Your task to perform on an android device: toggle wifi Image 0: 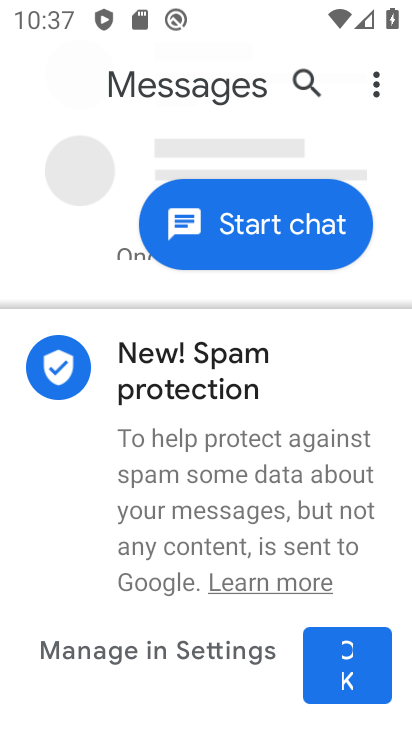
Step 0: press home button
Your task to perform on an android device: toggle wifi Image 1: 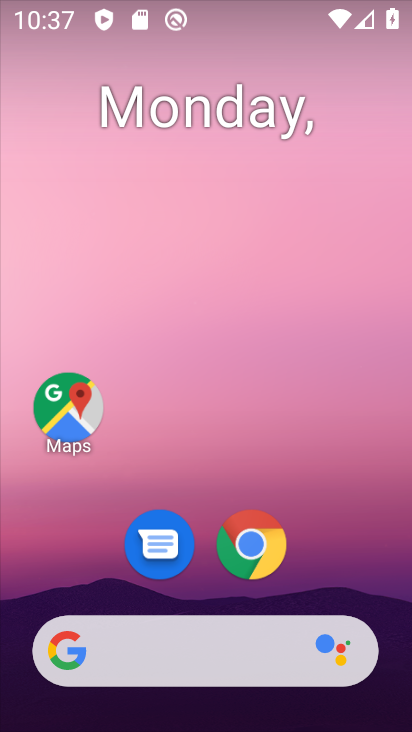
Step 1: drag from (409, 321) to (386, 62)
Your task to perform on an android device: toggle wifi Image 2: 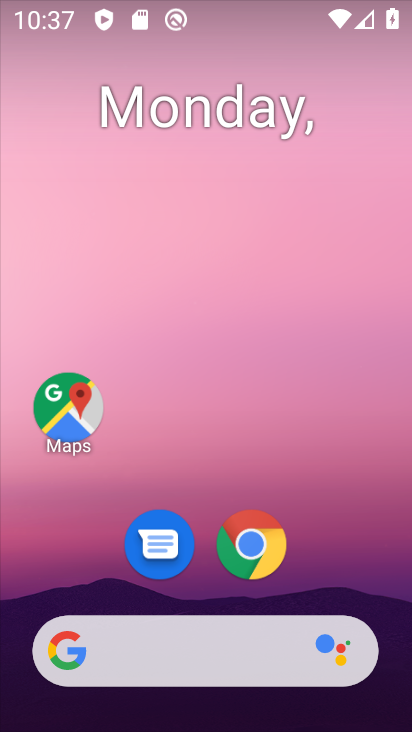
Step 2: drag from (411, 445) to (391, 157)
Your task to perform on an android device: toggle wifi Image 3: 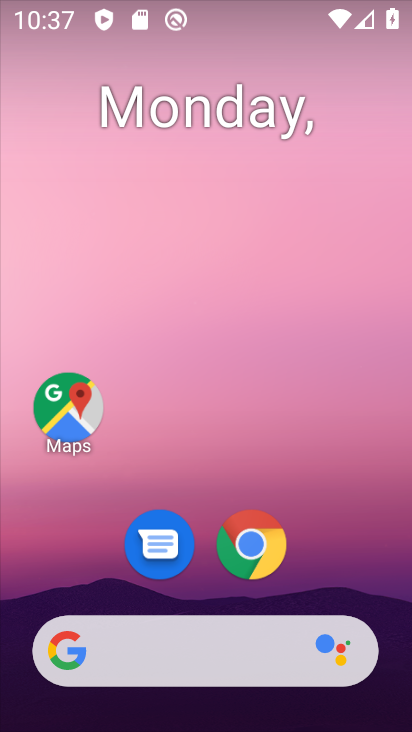
Step 3: drag from (400, 643) to (411, 319)
Your task to perform on an android device: toggle wifi Image 4: 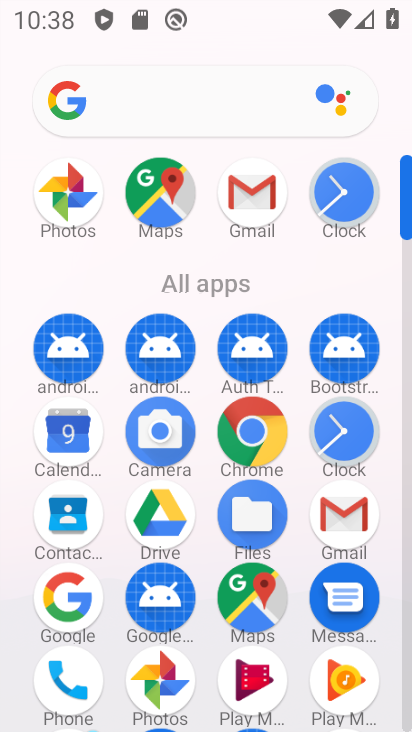
Step 4: drag from (403, 93) to (408, 40)
Your task to perform on an android device: toggle wifi Image 5: 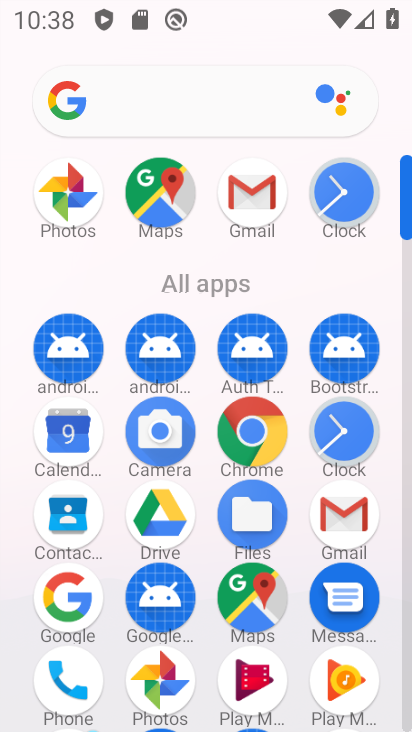
Step 5: drag from (405, 169) to (401, 41)
Your task to perform on an android device: toggle wifi Image 6: 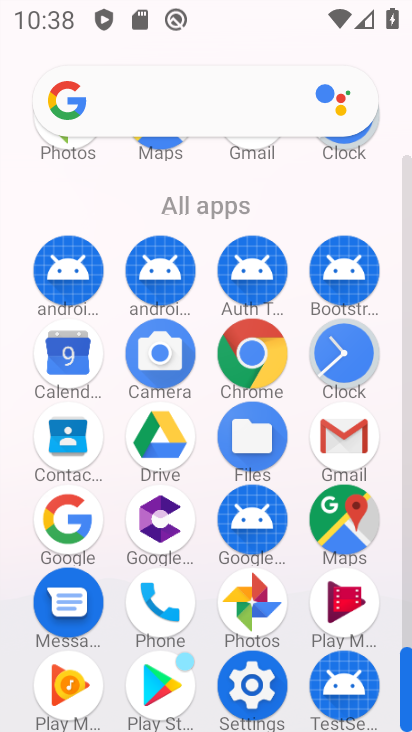
Step 6: click (257, 682)
Your task to perform on an android device: toggle wifi Image 7: 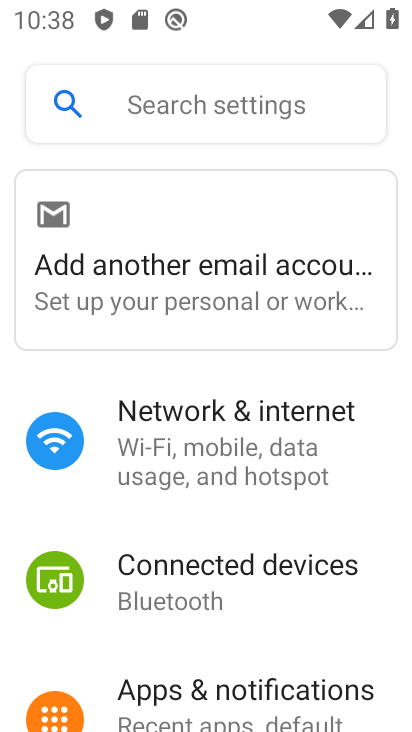
Step 7: click (182, 439)
Your task to perform on an android device: toggle wifi Image 8: 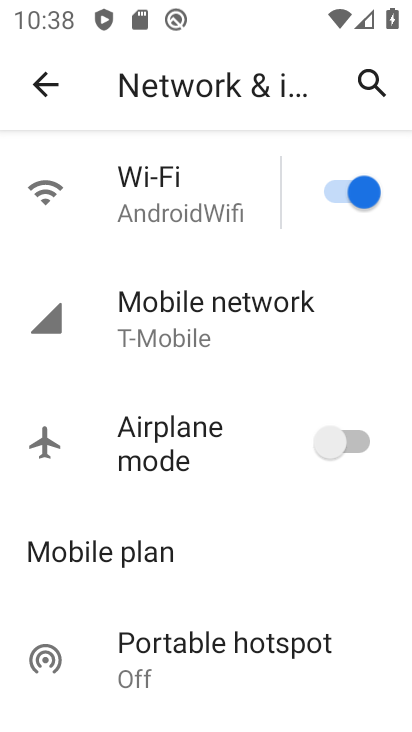
Step 8: click (329, 194)
Your task to perform on an android device: toggle wifi Image 9: 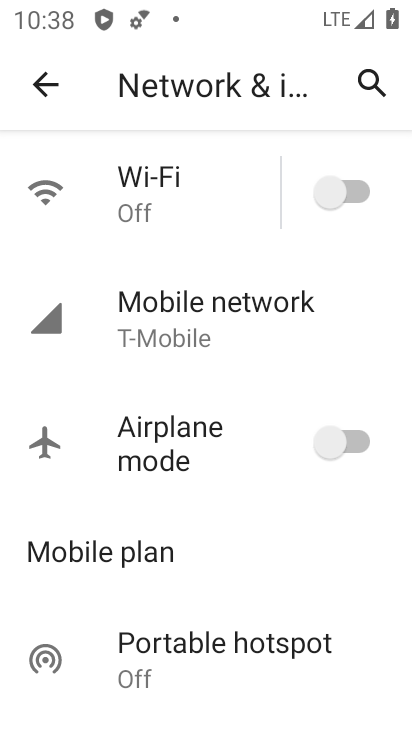
Step 9: task complete